Your task to perform on an android device: What's the weather going to be tomorrow? Image 0: 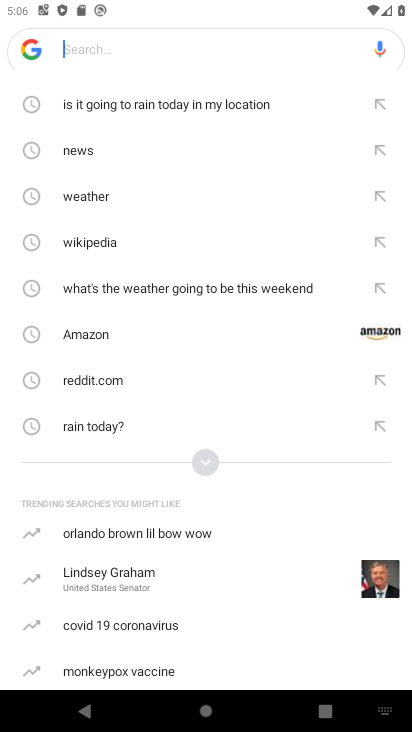
Step 0: press home button
Your task to perform on an android device: What's the weather going to be tomorrow? Image 1: 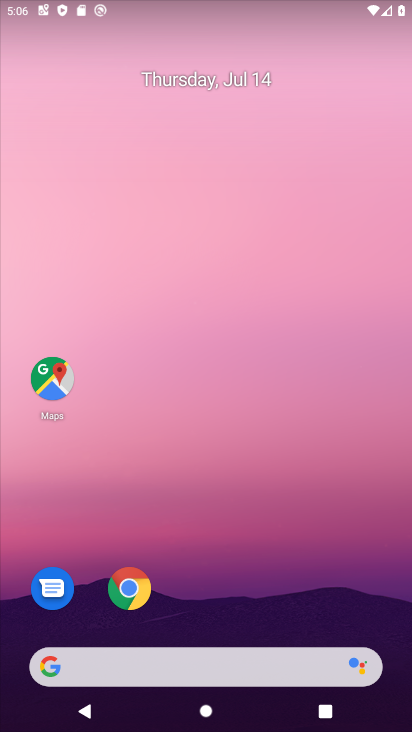
Step 1: drag from (139, 642) to (279, 253)
Your task to perform on an android device: What's the weather going to be tomorrow? Image 2: 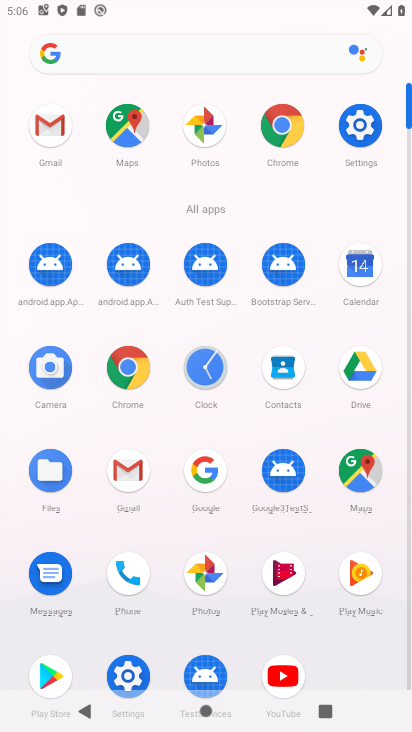
Step 2: click (198, 476)
Your task to perform on an android device: What's the weather going to be tomorrow? Image 3: 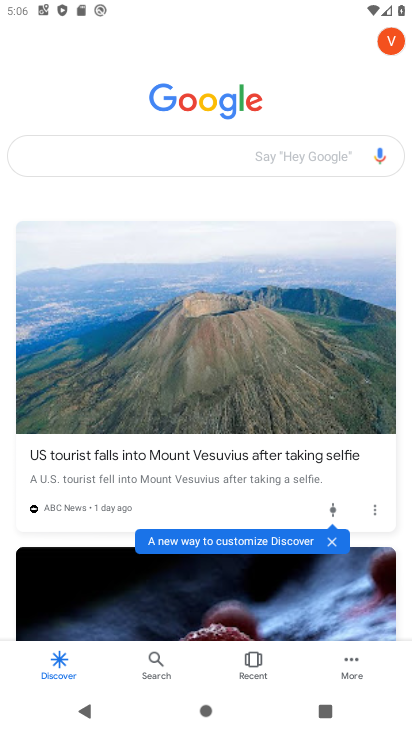
Step 3: click (239, 159)
Your task to perform on an android device: What's the weather going to be tomorrow? Image 4: 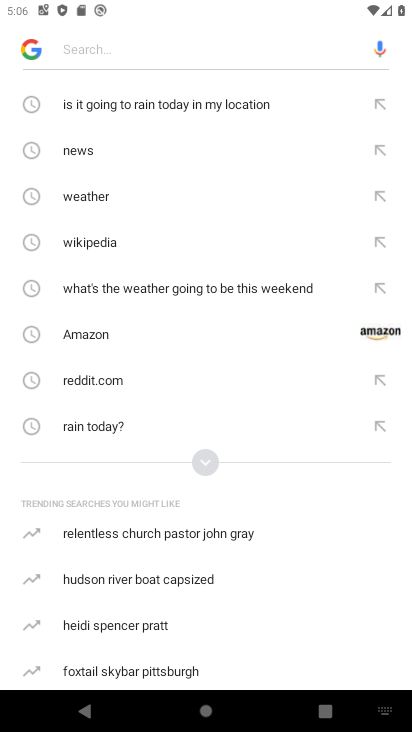
Step 4: click (84, 197)
Your task to perform on an android device: What's the weather going to be tomorrow? Image 5: 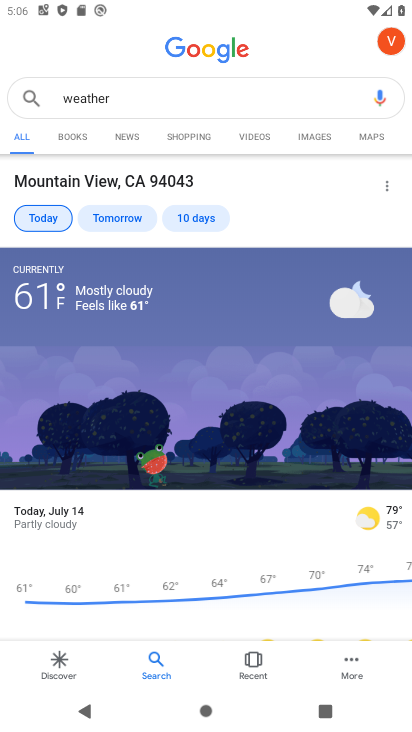
Step 5: click (116, 214)
Your task to perform on an android device: What's the weather going to be tomorrow? Image 6: 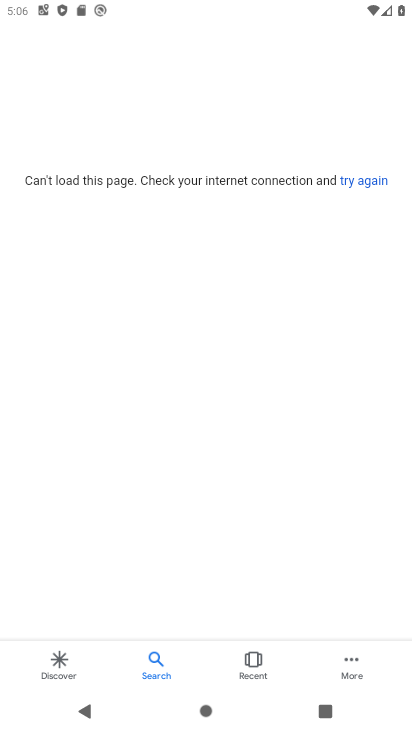
Step 6: task complete